Your task to perform on an android device: open a new tab in the chrome app Image 0: 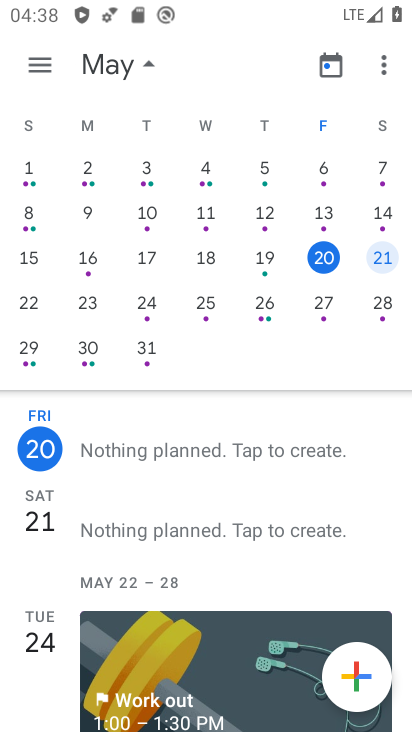
Step 0: press home button
Your task to perform on an android device: open a new tab in the chrome app Image 1: 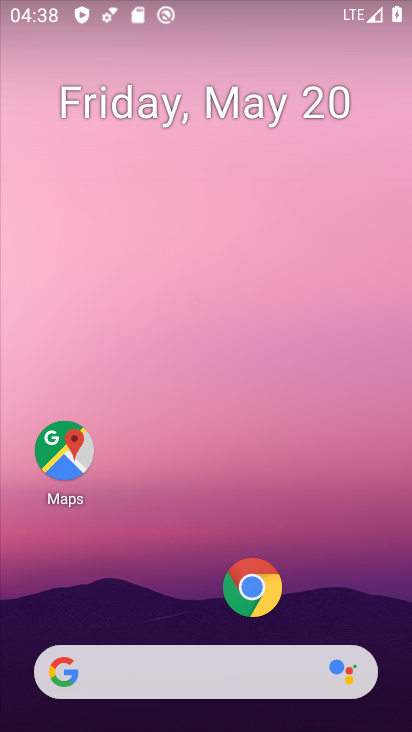
Step 1: click (248, 590)
Your task to perform on an android device: open a new tab in the chrome app Image 2: 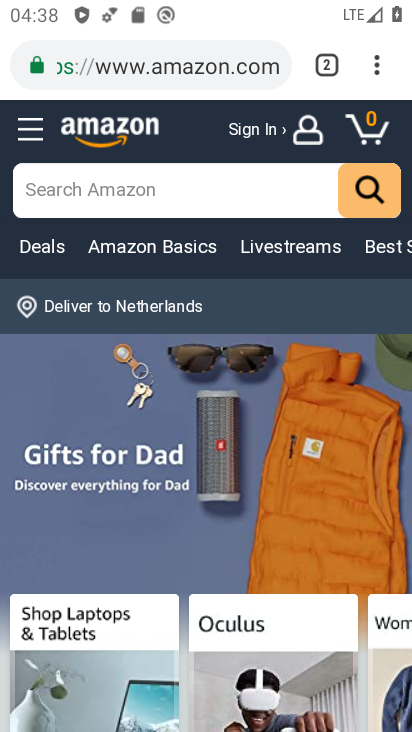
Step 2: click (326, 64)
Your task to perform on an android device: open a new tab in the chrome app Image 3: 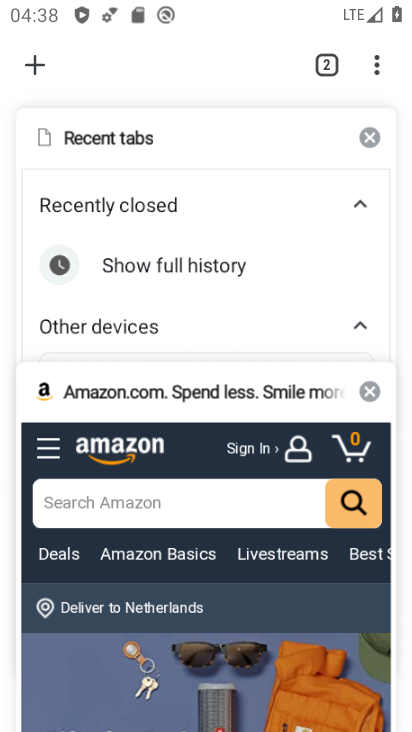
Step 3: click (42, 68)
Your task to perform on an android device: open a new tab in the chrome app Image 4: 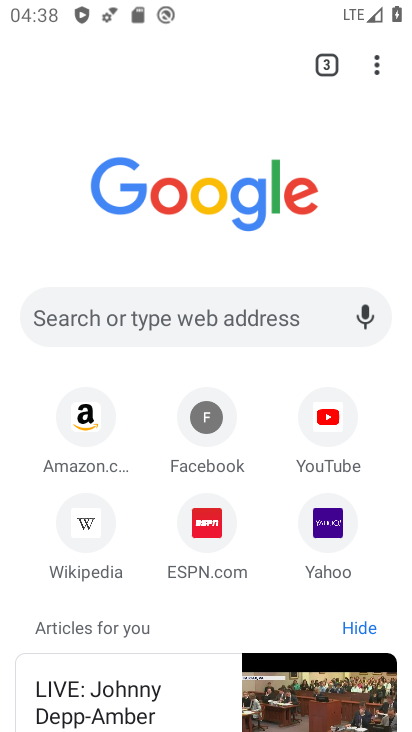
Step 4: task complete